Your task to perform on an android device: Go to sound settings Image 0: 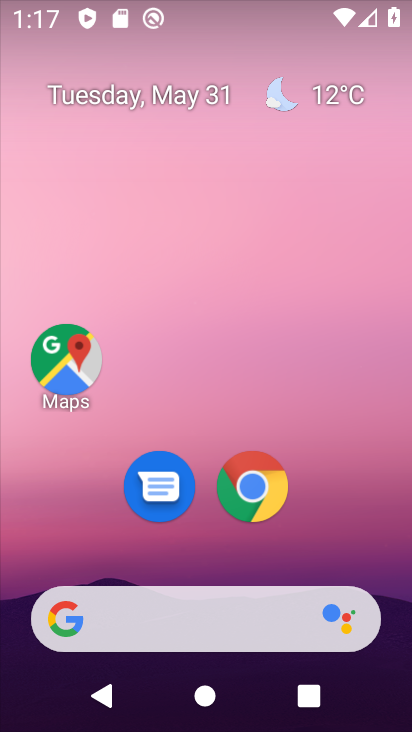
Step 0: drag from (240, 560) to (139, 1)
Your task to perform on an android device: Go to sound settings Image 1: 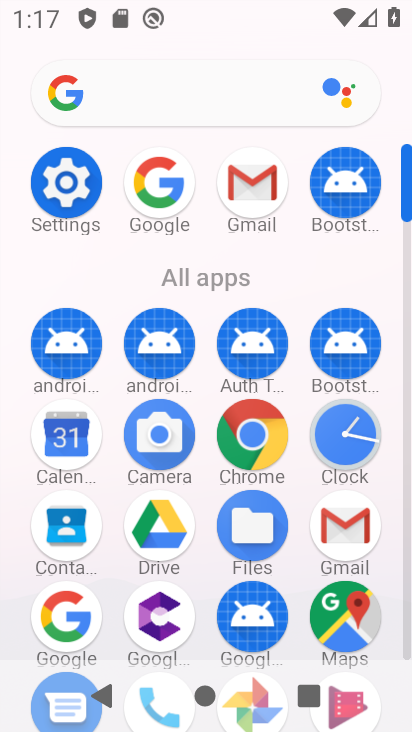
Step 1: click (64, 185)
Your task to perform on an android device: Go to sound settings Image 2: 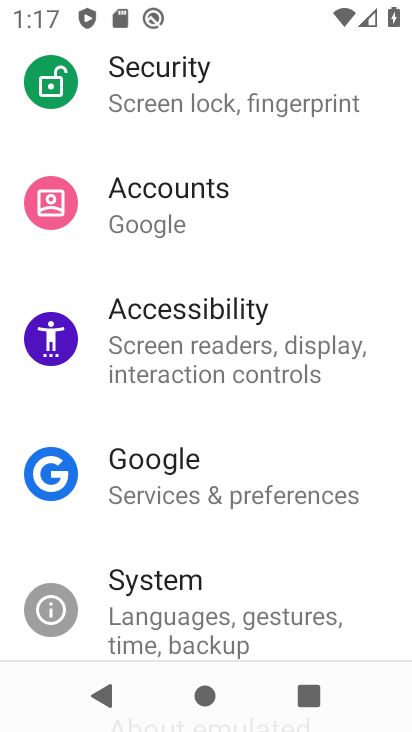
Step 2: drag from (216, 231) to (212, 637)
Your task to perform on an android device: Go to sound settings Image 3: 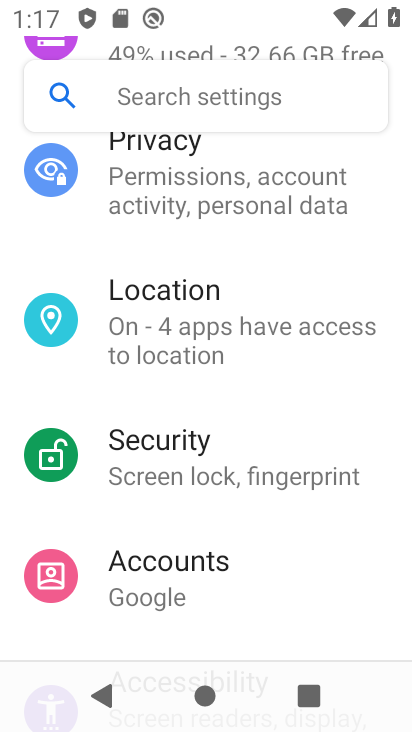
Step 3: drag from (173, 239) to (162, 692)
Your task to perform on an android device: Go to sound settings Image 4: 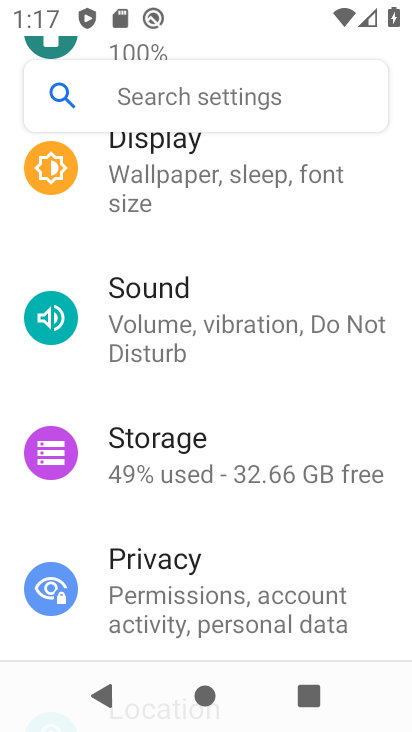
Step 4: click (177, 285)
Your task to perform on an android device: Go to sound settings Image 5: 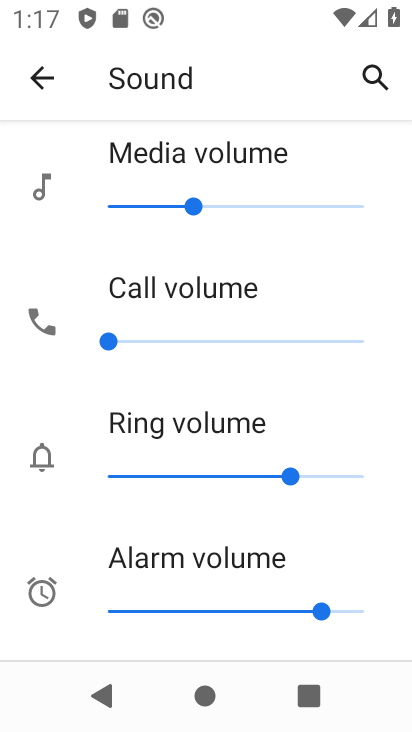
Step 5: task complete